Your task to perform on an android device: See recent photos Image 0: 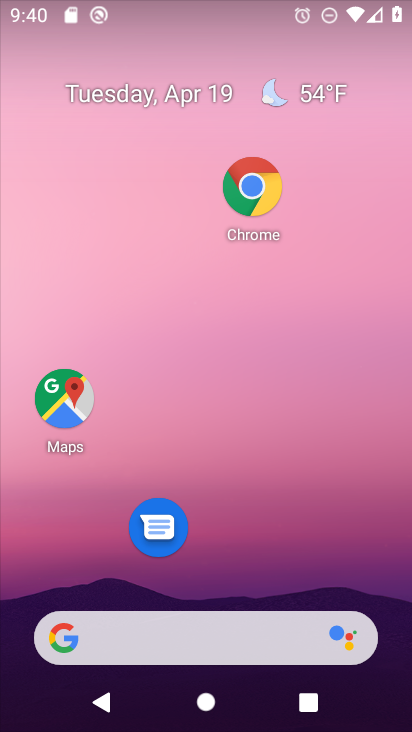
Step 0: drag from (271, 579) to (315, 132)
Your task to perform on an android device: See recent photos Image 1: 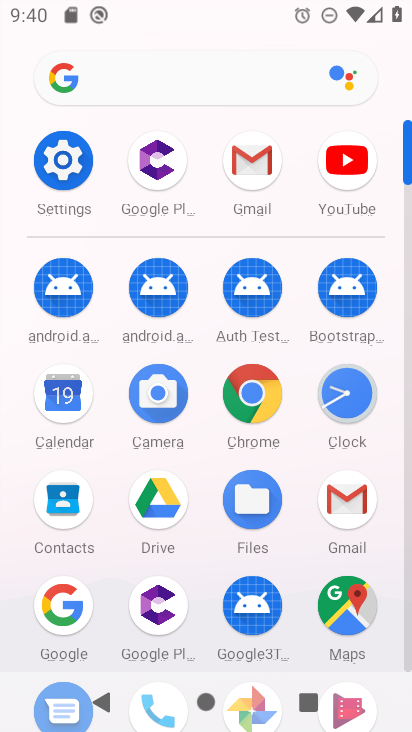
Step 1: drag from (192, 575) to (218, 243)
Your task to perform on an android device: See recent photos Image 2: 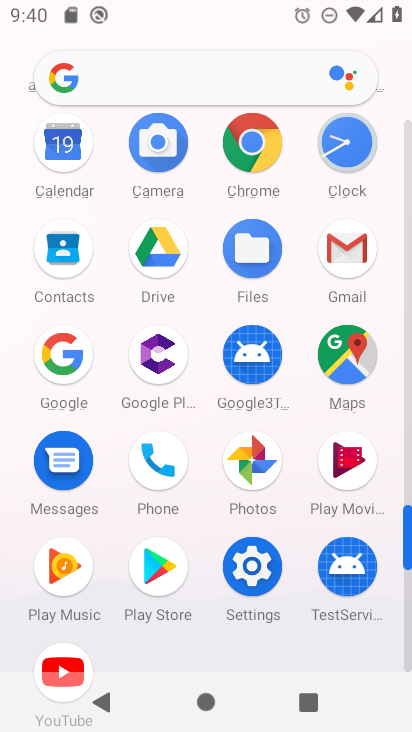
Step 2: click (243, 452)
Your task to perform on an android device: See recent photos Image 3: 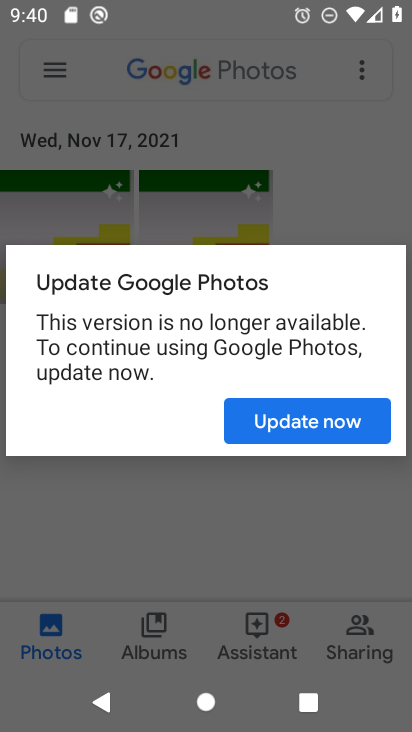
Step 3: click (336, 414)
Your task to perform on an android device: See recent photos Image 4: 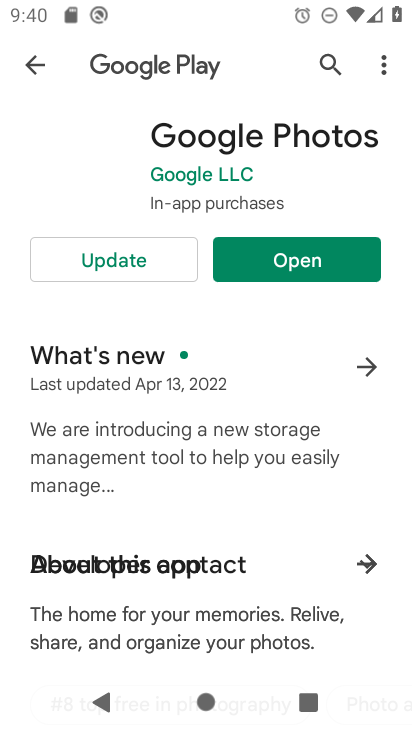
Step 4: press back button
Your task to perform on an android device: See recent photos Image 5: 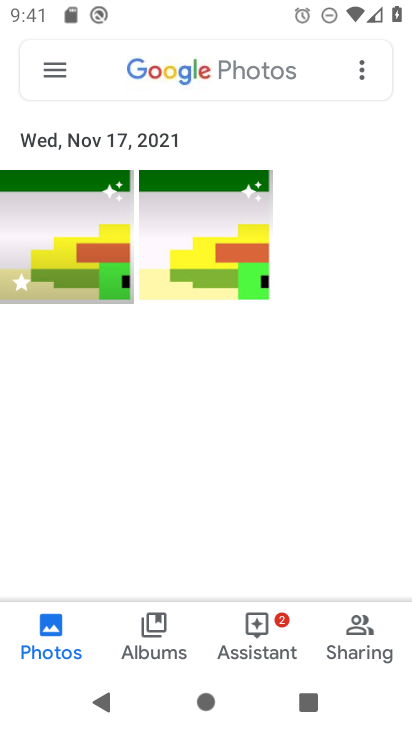
Step 5: click (71, 232)
Your task to perform on an android device: See recent photos Image 6: 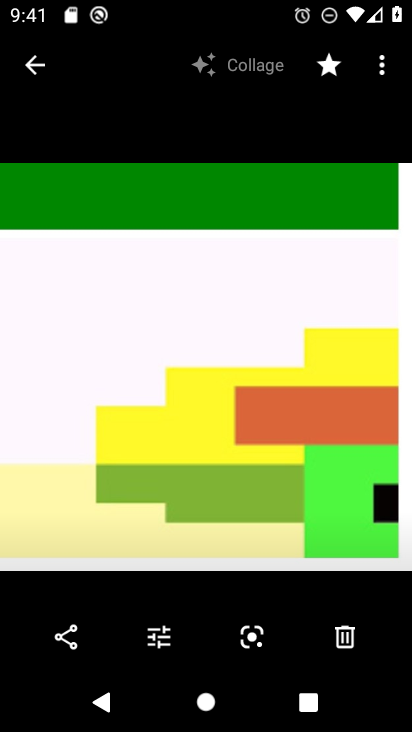
Step 6: task complete